Your task to perform on an android device: Open the Play Movies app and select the watchlist tab. Image 0: 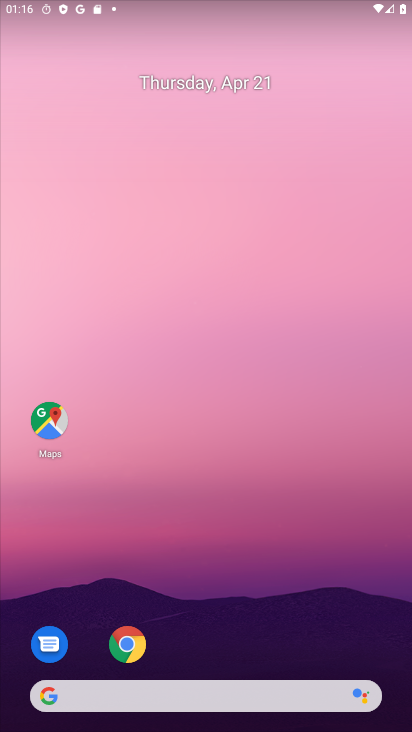
Step 0: drag from (243, 618) to (268, 226)
Your task to perform on an android device: Open the Play Movies app and select the watchlist tab. Image 1: 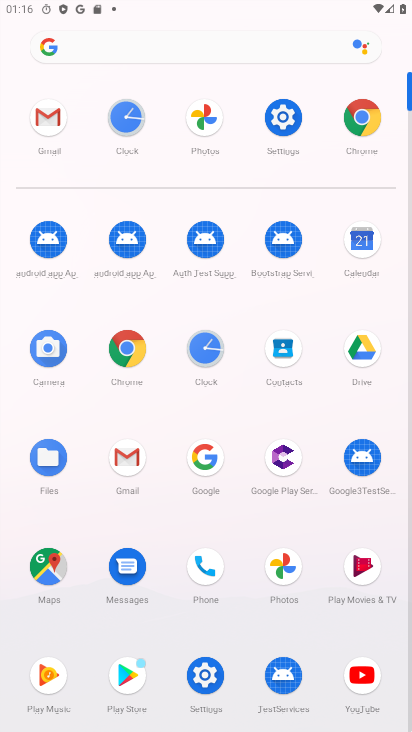
Step 1: click (366, 567)
Your task to perform on an android device: Open the Play Movies app and select the watchlist tab. Image 2: 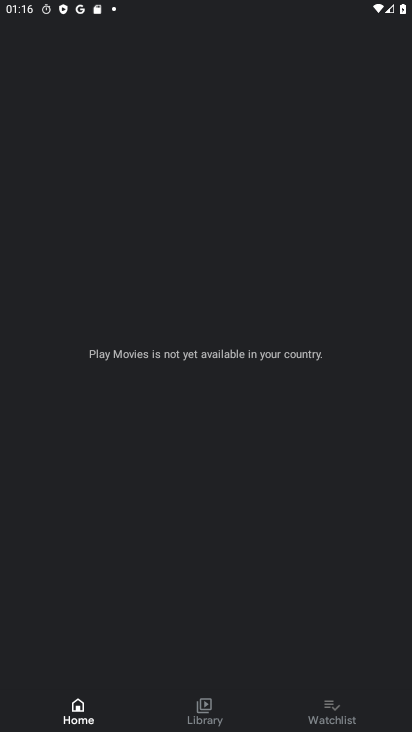
Step 2: click (323, 709)
Your task to perform on an android device: Open the Play Movies app and select the watchlist tab. Image 3: 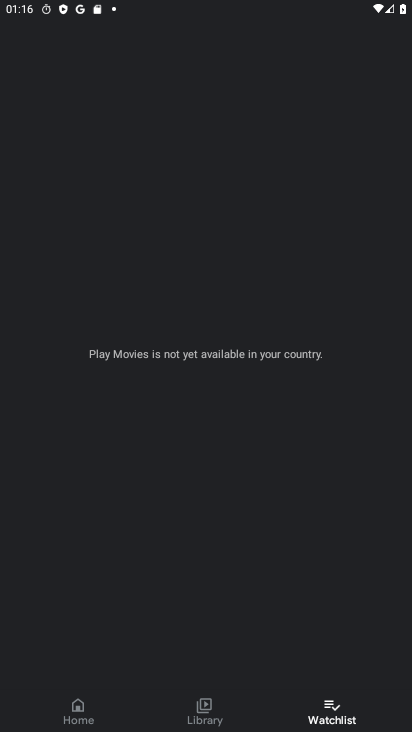
Step 3: task complete